Your task to perform on an android device: Open Google Chrome and open the bookmarks view Image 0: 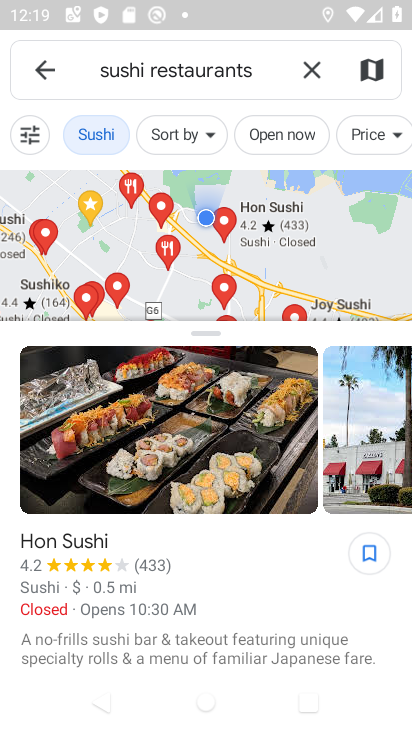
Step 0: press home button
Your task to perform on an android device: Open Google Chrome and open the bookmarks view Image 1: 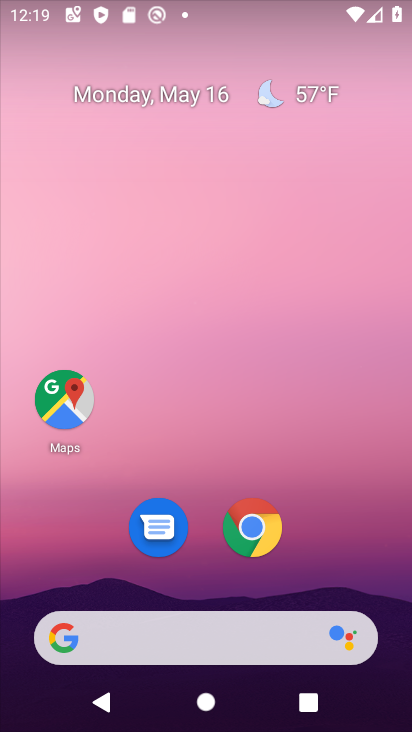
Step 1: click (250, 539)
Your task to perform on an android device: Open Google Chrome and open the bookmarks view Image 2: 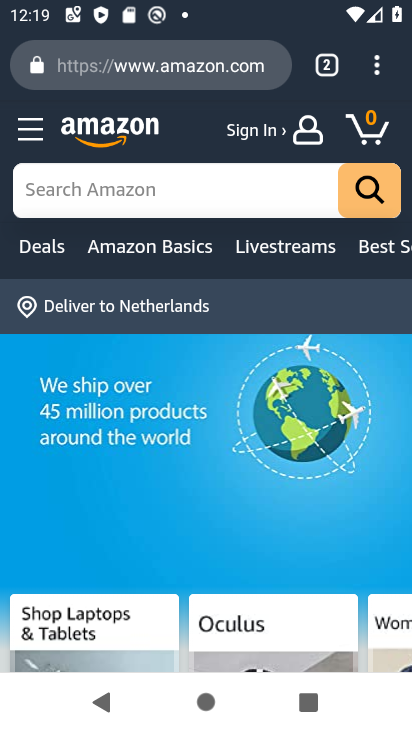
Step 2: click (380, 65)
Your task to perform on an android device: Open Google Chrome and open the bookmarks view Image 3: 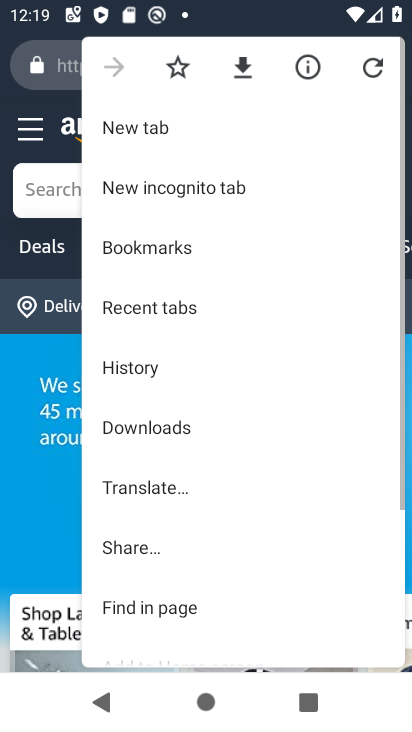
Step 3: click (151, 253)
Your task to perform on an android device: Open Google Chrome and open the bookmarks view Image 4: 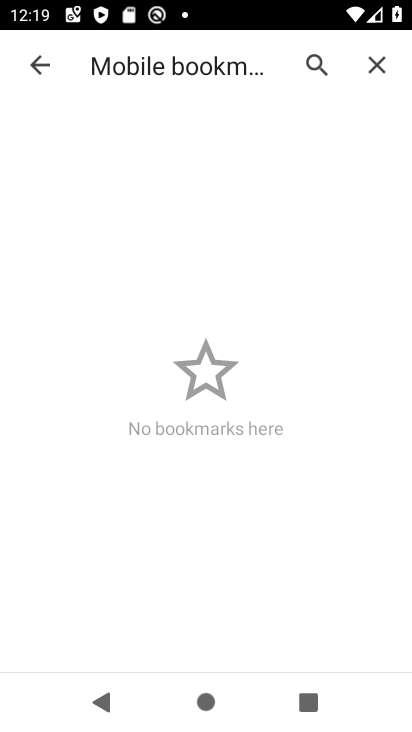
Step 4: task complete